Your task to perform on an android device: Go to Maps Image 0: 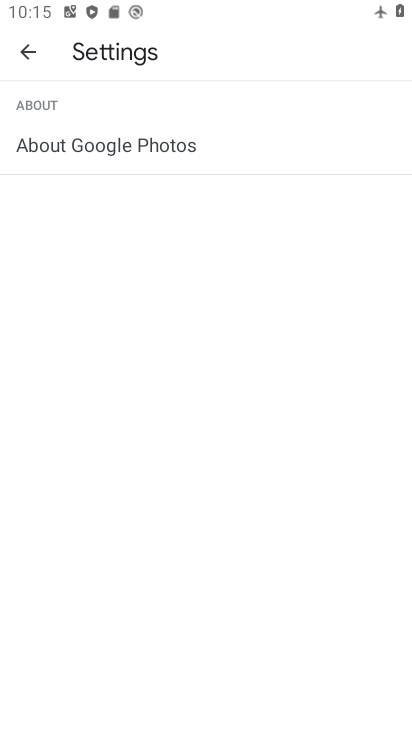
Step 0: press home button
Your task to perform on an android device: Go to Maps Image 1: 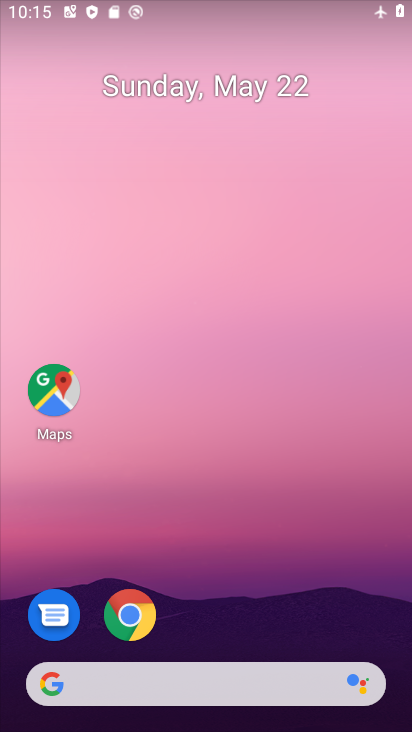
Step 1: drag from (226, 615) to (269, 132)
Your task to perform on an android device: Go to Maps Image 2: 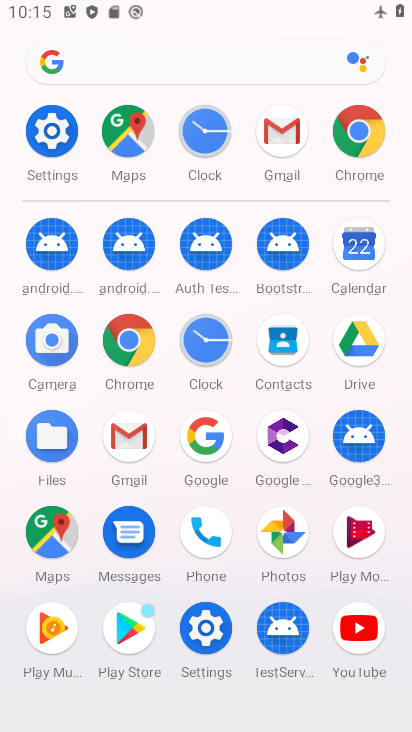
Step 2: click (121, 146)
Your task to perform on an android device: Go to Maps Image 3: 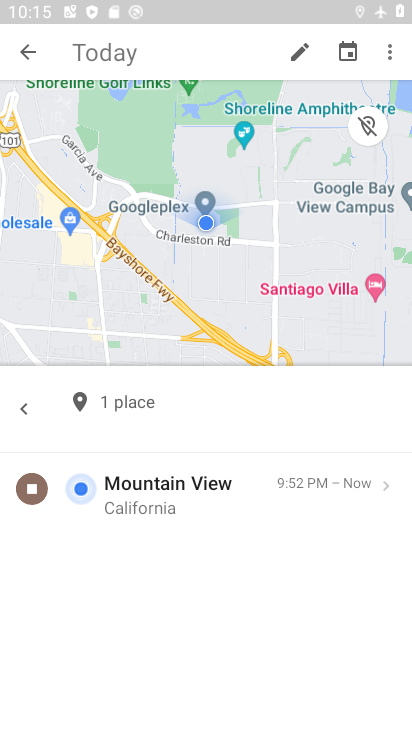
Step 3: task complete